Your task to perform on an android device: Go to ESPN.com Image 0: 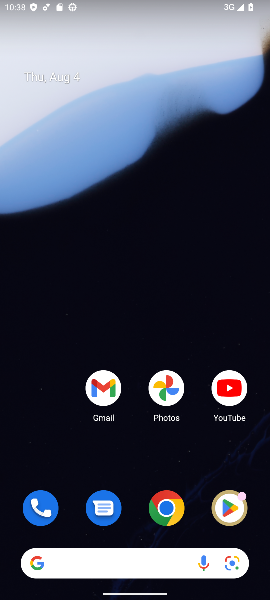
Step 0: click (171, 514)
Your task to perform on an android device: Go to ESPN.com Image 1: 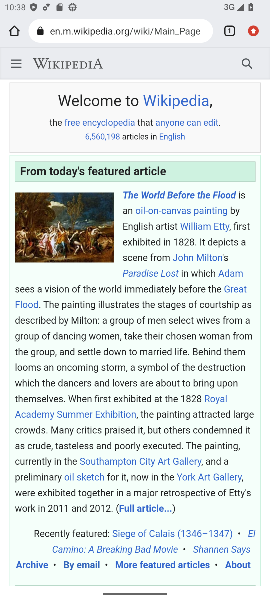
Step 1: click (228, 33)
Your task to perform on an android device: Go to ESPN.com Image 2: 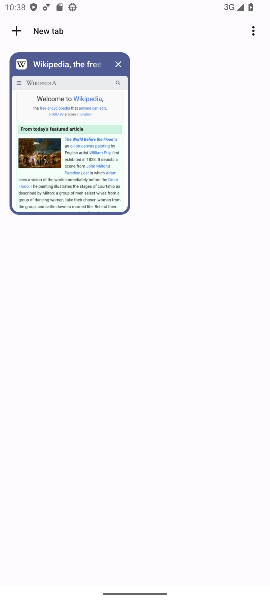
Step 2: click (118, 65)
Your task to perform on an android device: Go to ESPN.com Image 3: 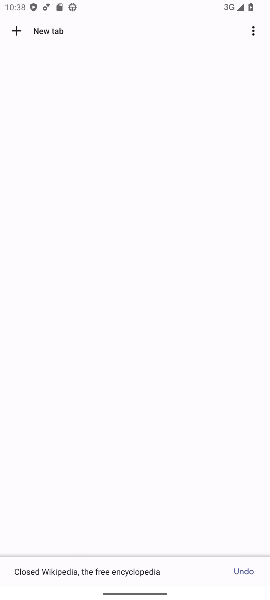
Step 3: click (54, 33)
Your task to perform on an android device: Go to ESPN.com Image 4: 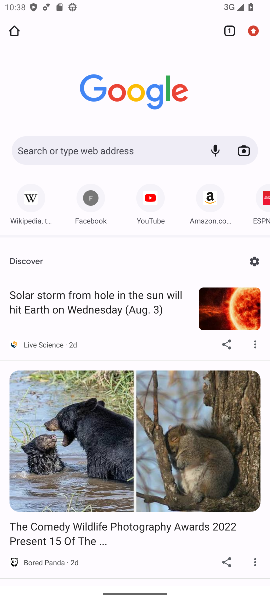
Step 4: click (258, 207)
Your task to perform on an android device: Go to ESPN.com Image 5: 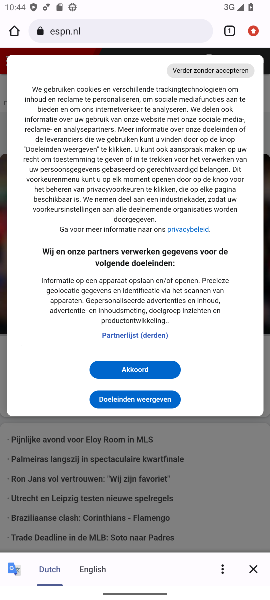
Step 5: task complete